Your task to perform on an android device: Open the calendar and show me this week's events? Image 0: 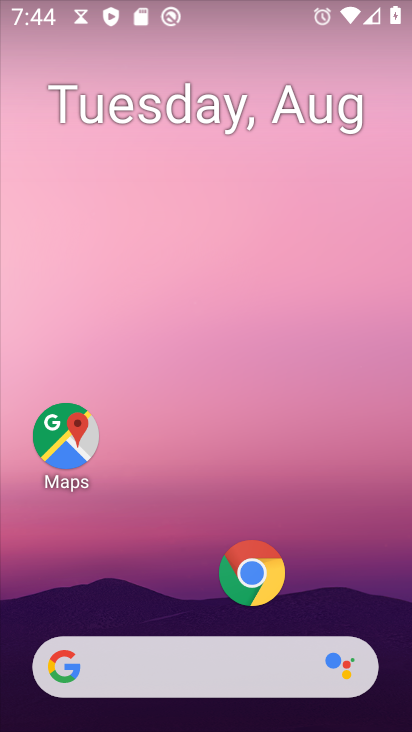
Step 0: press home button
Your task to perform on an android device: Open the calendar and show me this week's events? Image 1: 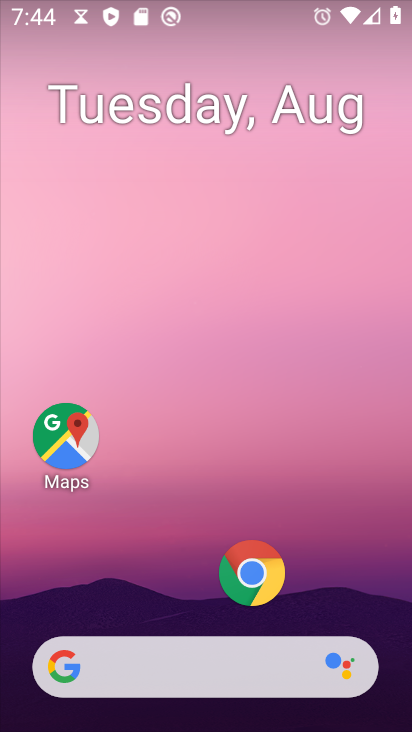
Step 1: drag from (166, 614) to (198, 79)
Your task to perform on an android device: Open the calendar and show me this week's events? Image 2: 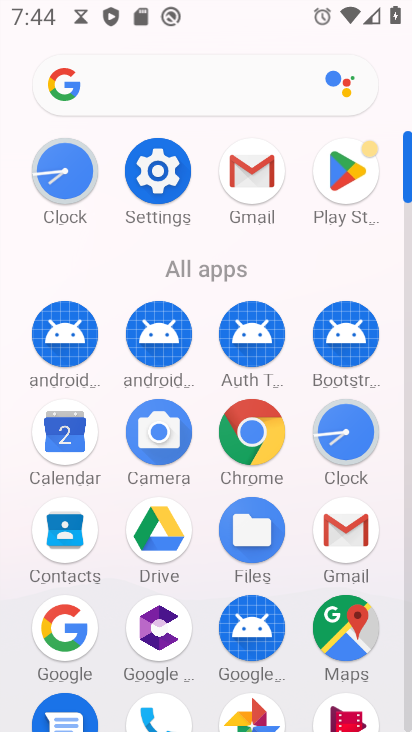
Step 2: click (63, 425)
Your task to perform on an android device: Open the calendar and show me this week's events? Image 3: 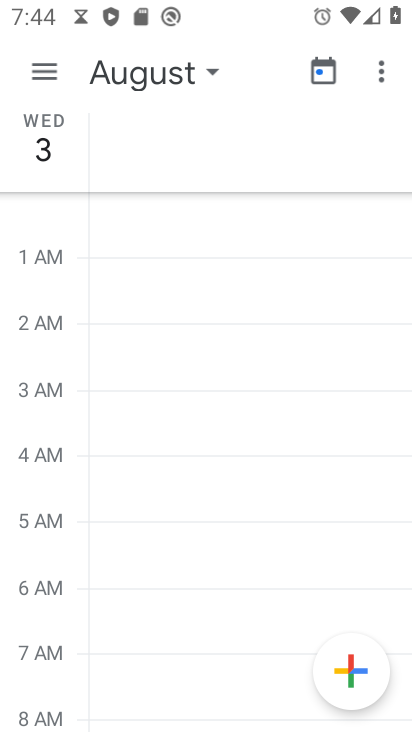
Step 3: click (30, 66)
Your task to perform on an android device: Open the calendar and show me this week's events? Image 4: 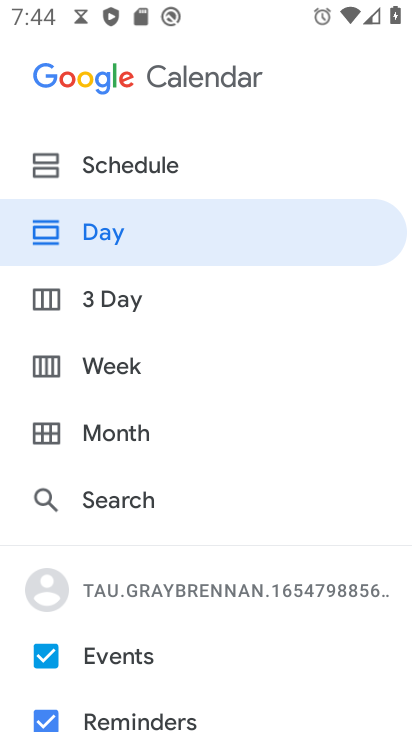
Step 4: drag from (120, 636) to (146, 381)
Your task to perform on an android device: Open the calendar and show me this week's events? Image 5: 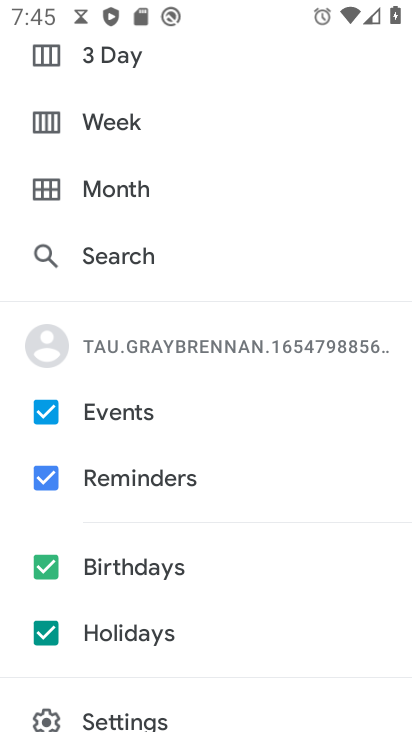
Step 5: click (42, 630)
Your task to perform on an android device: Open the calendar and show me this week's events? Image 6: 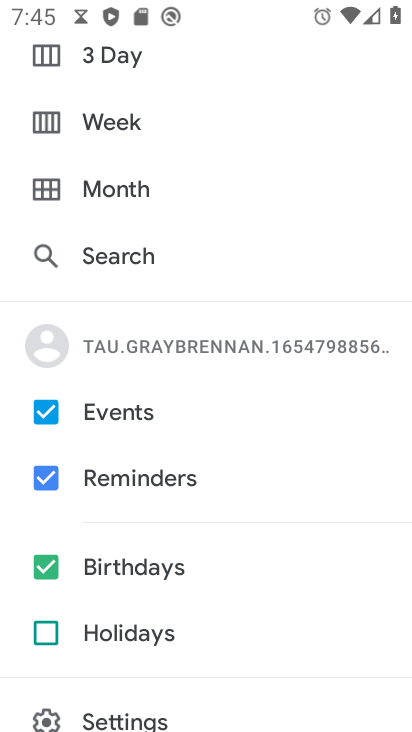
Step 6: click (47, 565)
Your task to perform on an android device: Open the calendar and show me this week's events? Image 7: 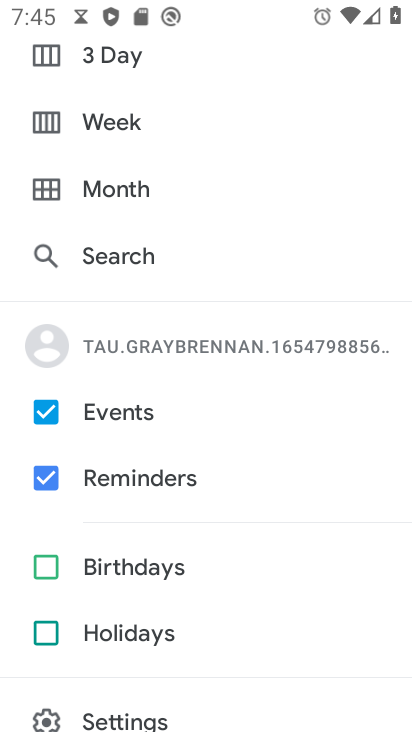
Step 7: click (48, 469)
Your task to perform on an android device: Open the calendar and show me this week's events? Image 8: 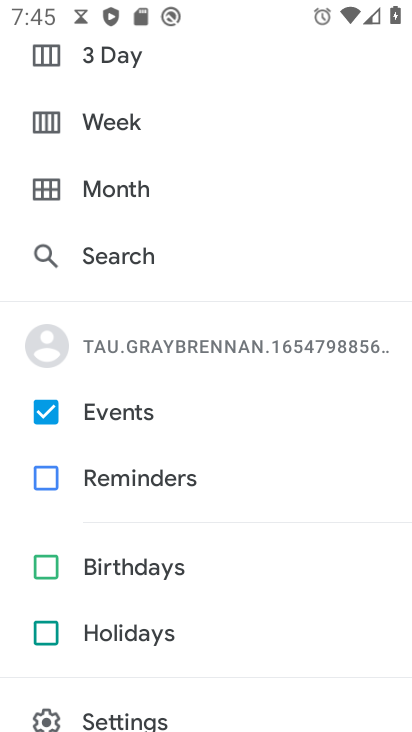
Step 8: click (69, 121)
Your task to perform on an android device: Open the calendar and show me this week's events? Image 9: 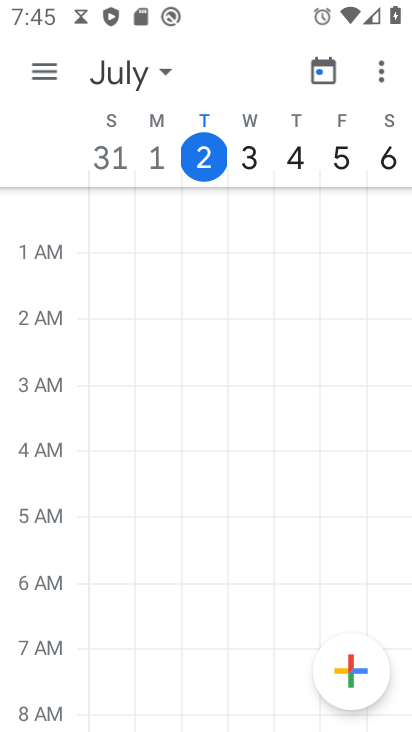
Step 9: task complete